Your task to perform on an android device: Search for sushi restaurants on Maps Image 0: 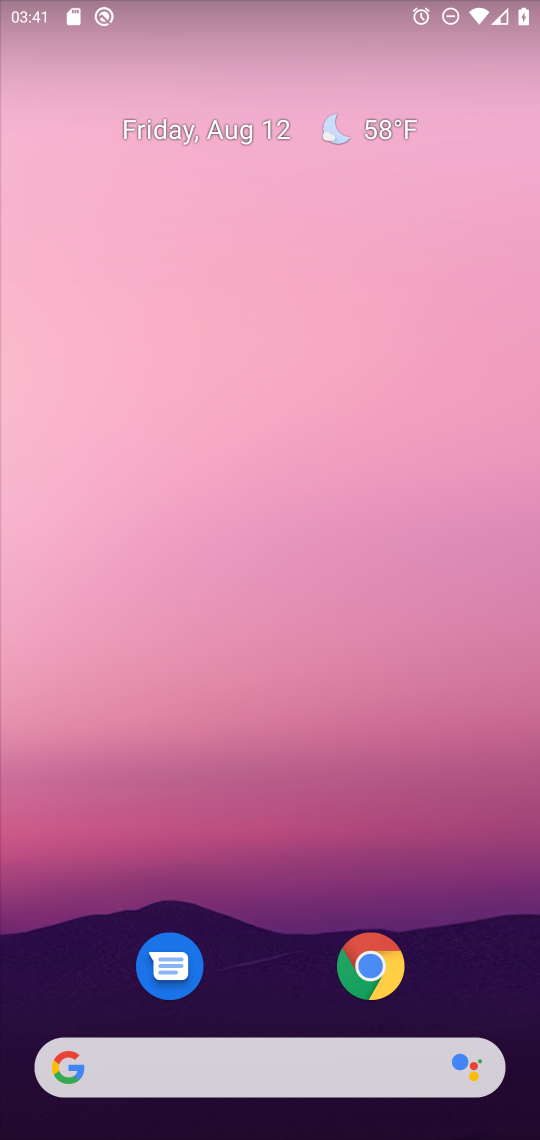
Step 0: drag from (225, 925) to (293, 223)
Your task to perform on an android device: Search for sushi restaurants on Maps Image 1: 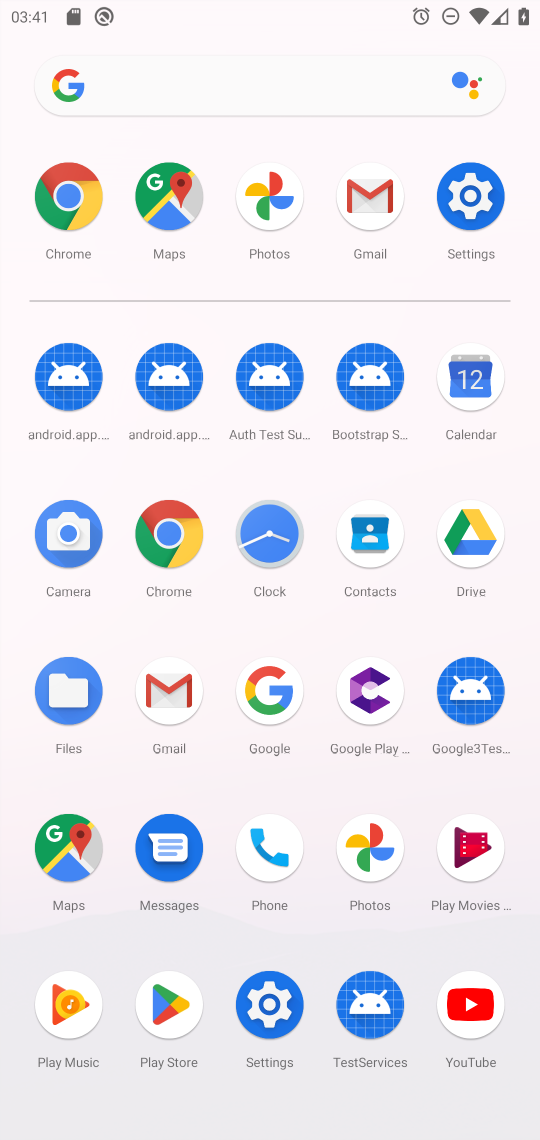
Step 1: click (53, 840)
Your task to perform on an android device: Search for sushi restaurants on Maps Image 2: 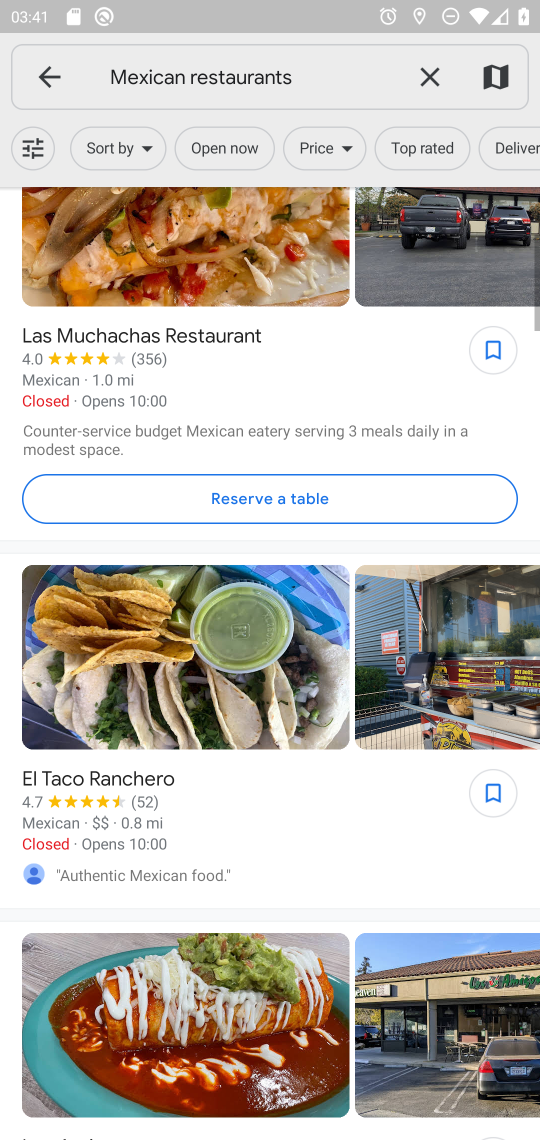
Step 2: click (425, 72)
Your task to perform on an android device: Search for sushi restaurants on Maps Image 3: 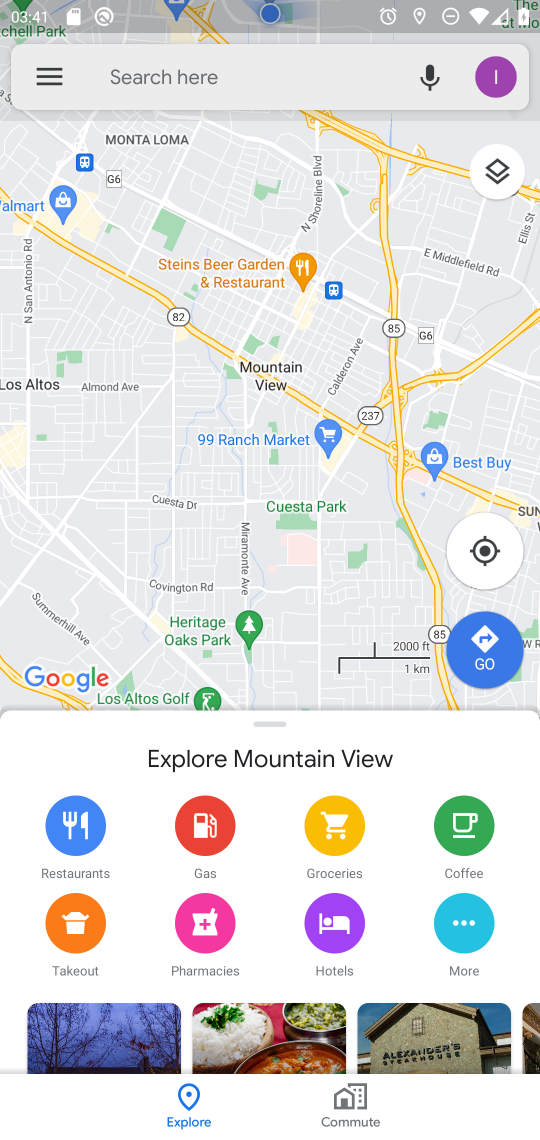
Step 3: click (345, 86)
Your task to perform on an android device: Search for sushi restaurants on Maps Image 4: 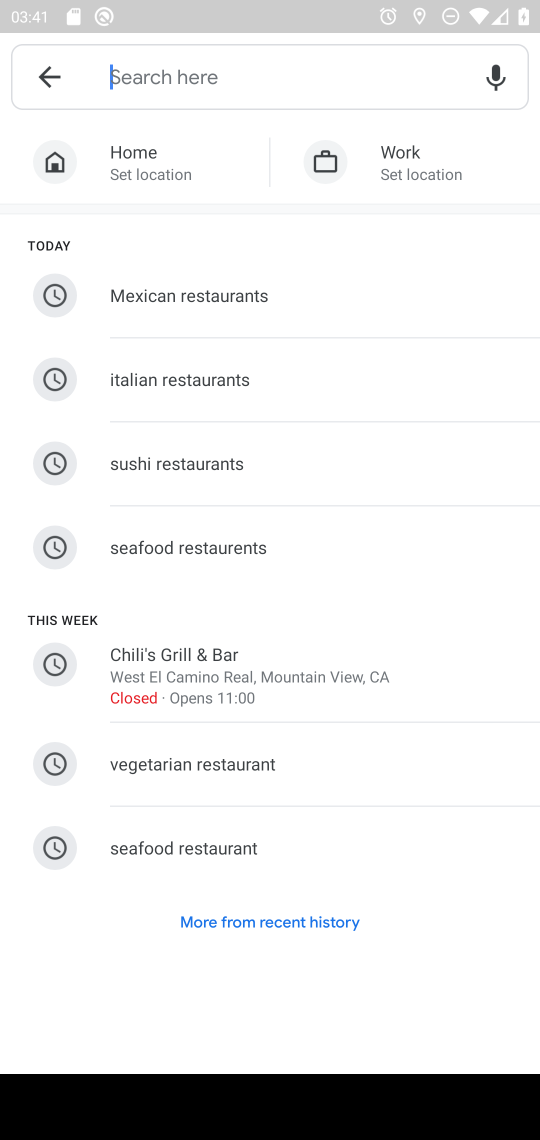
Step 4: click (217, 465)
Your task to perform on an android device: Search for sushi restaurants on Maps Image 5: 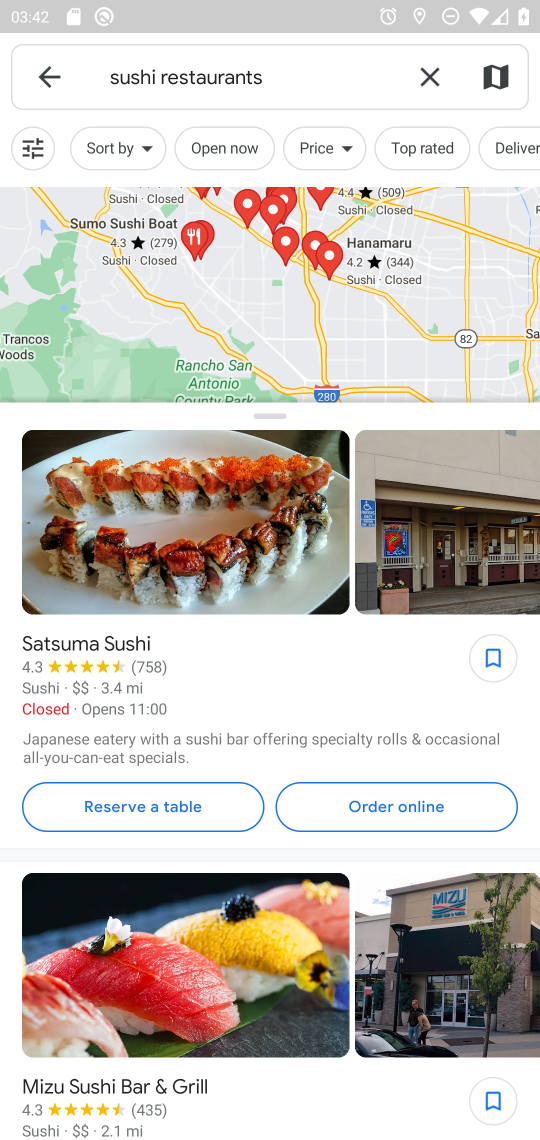
Step 5: task complete